Your task to perform on an android device: make emails show in primary in the gmail app Image 0: 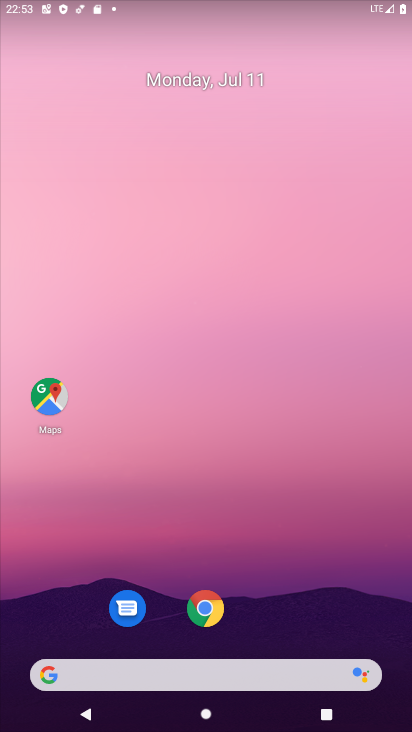
Step 0: drag from (23, 706) to (162, 8)
Your task to perform on an android device: make emails show in primary in the gmail app Image 1: 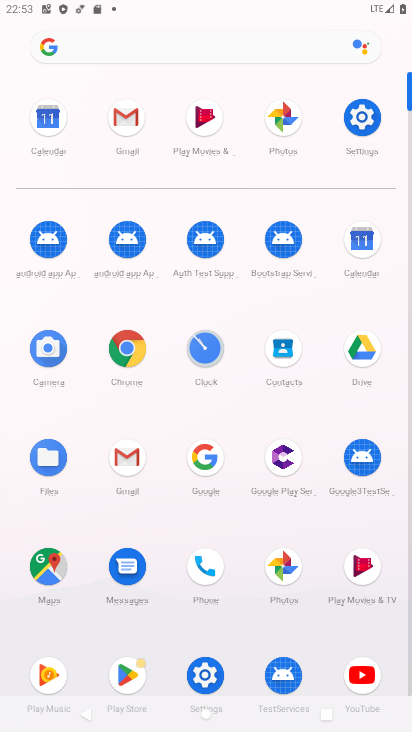
Step 1: click (127, 462)
Your task to perform on an android device: make emails show in primary in the gmail app Image 2: 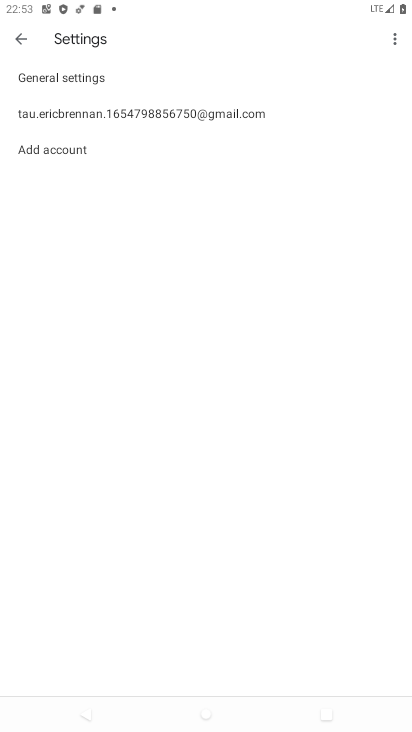
Step 2: click (20, 35)
Your task to perform on an android device: make emails show in primary in the gmail app Image 3: 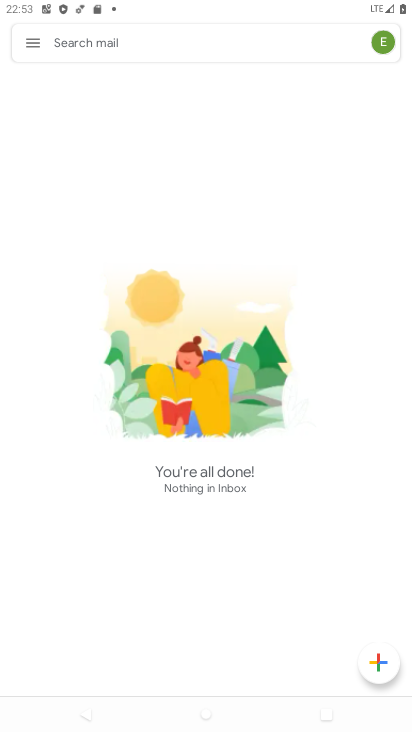
Step 3: click (26, 48)
Your task to perform on an android device: make emails show in primary in the gmail app Image 4: 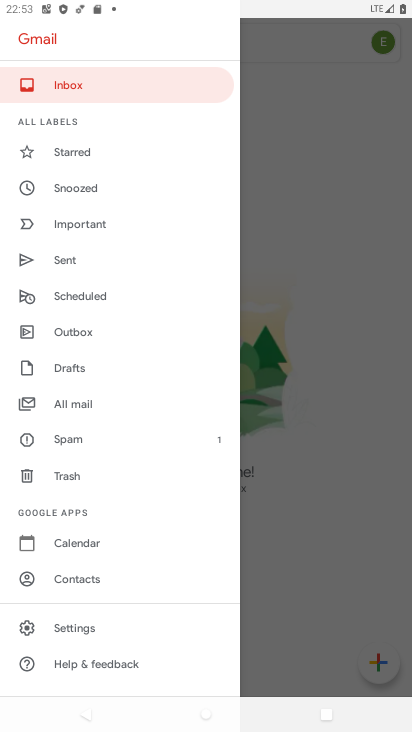
Step 4: click (68, 84)
Your task to perform on an android device: make emails show in primary in the gmail app Image 5: 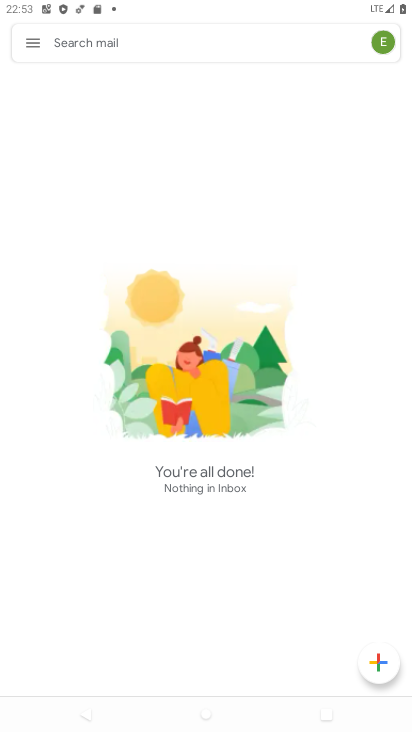
Step 5: task complete